Your task to perform on an android device: turn off wifi Image 0: 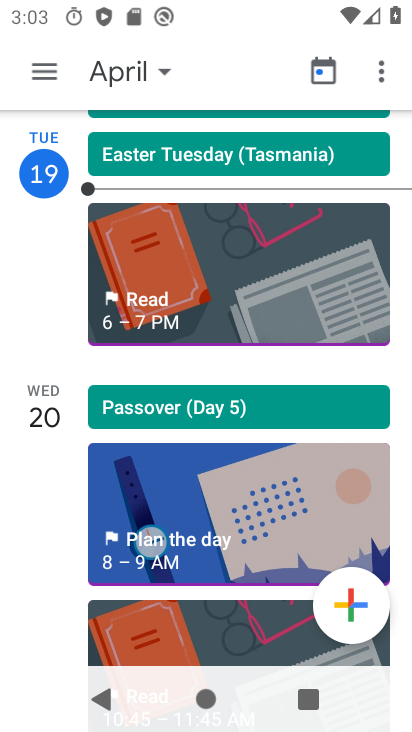
Step 0: press home button
Your task to perform on an android device: turn off wifi Image 1: 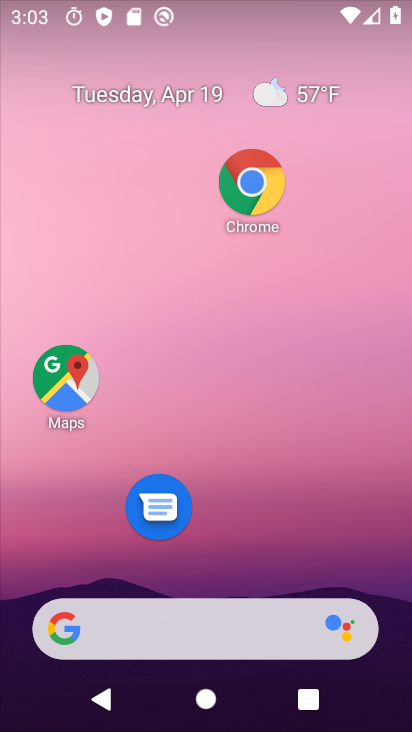
Step 1: drag from (288, 487) to (318, 94)
Your task to perform on an android device: turn off wifi Image 2: 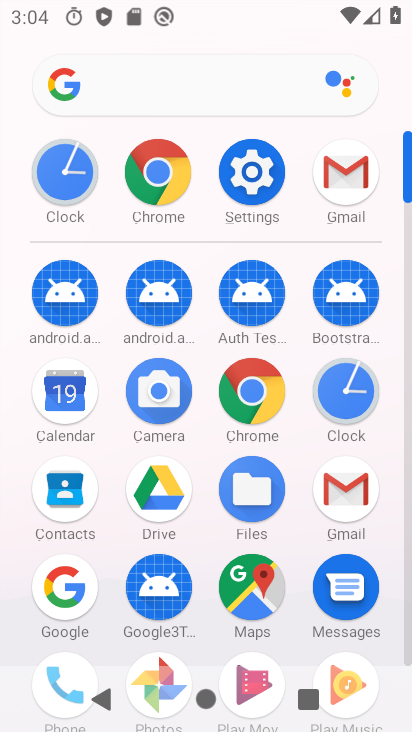
Step 2: click (258, 186)
Your task to perform on an android device: turn off wifi Image 3: 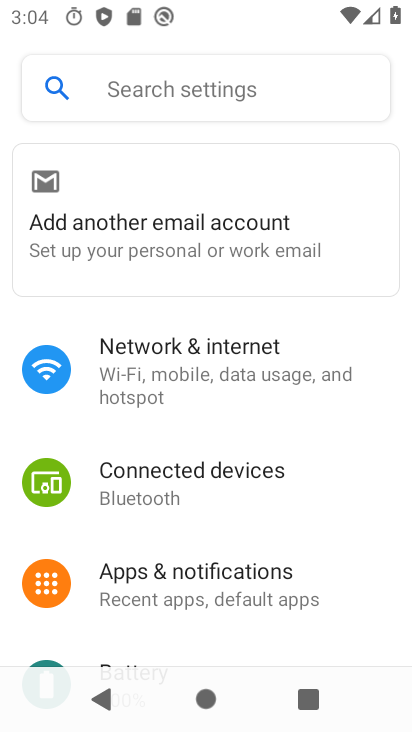
Step 3: click (281, 369)
Your task to perform on an android device: turn off wifi Image 4: 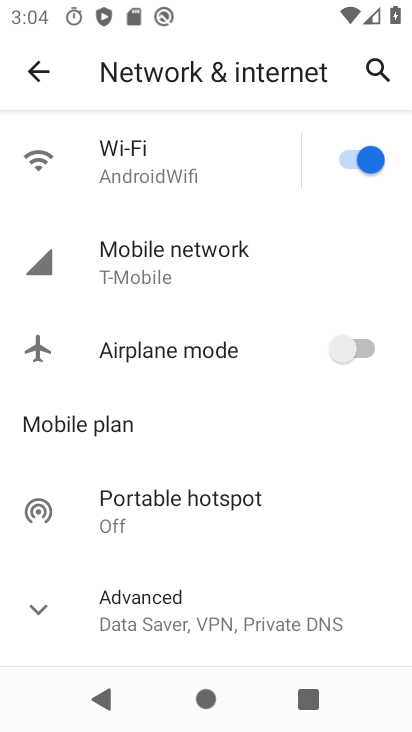
Step 4: click (351, 158)
Your task to perform on an android device: turn off wifi Image 5: 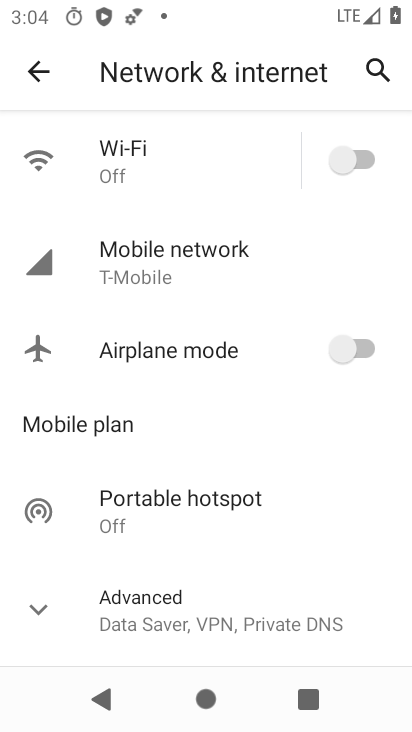
Step 5: task complete